Your task to perform on an android device: turn on bluetooth scan Image 0: 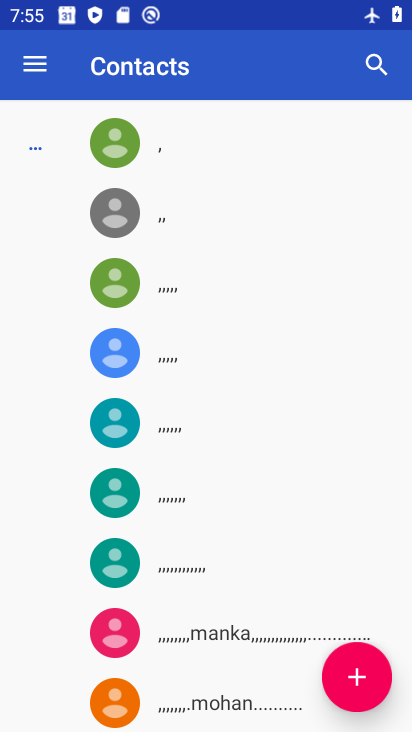
Step 0: press back button
Your task to perform on an android device: turn on bluetooth scan Image 1: 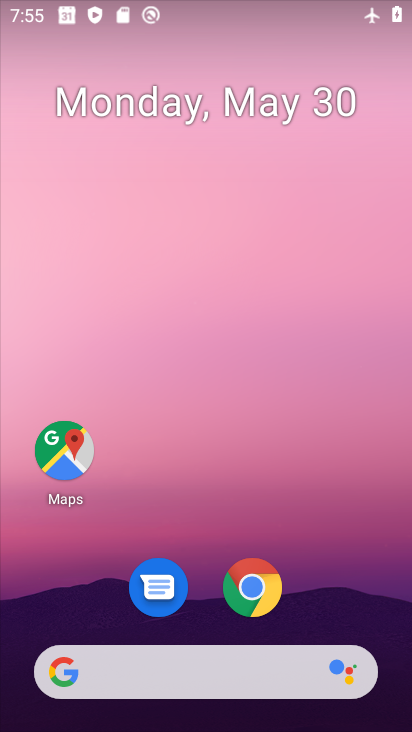
Step 1: drag from (356, 626) to (267, 0)
Your task to perform on an android device: turn on bluetooth scan Image 2: 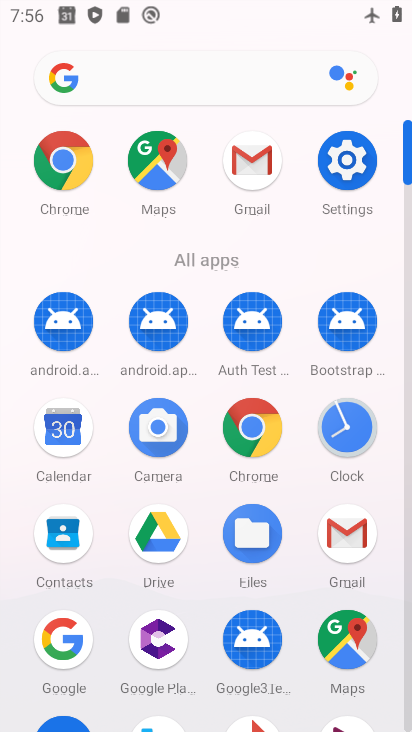
Step 2: click (341, 156)
Your task to perform on an android device: turn on bluetooth scan Image 3: 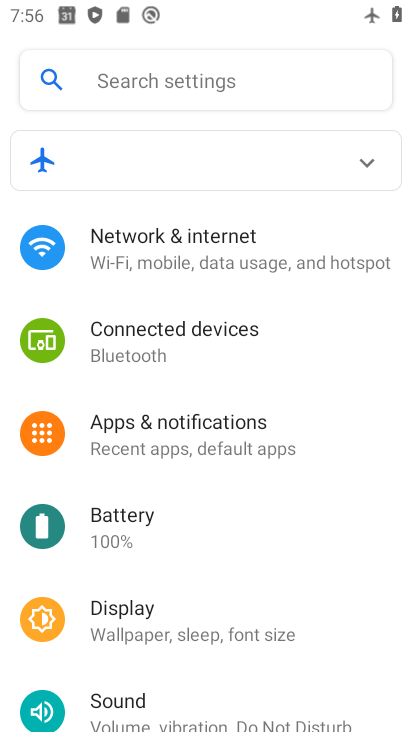
Step 3: drag from (347, 617) to (339, 190)
Your task to perform on an android device: turn on bluetooth scan Image 4: 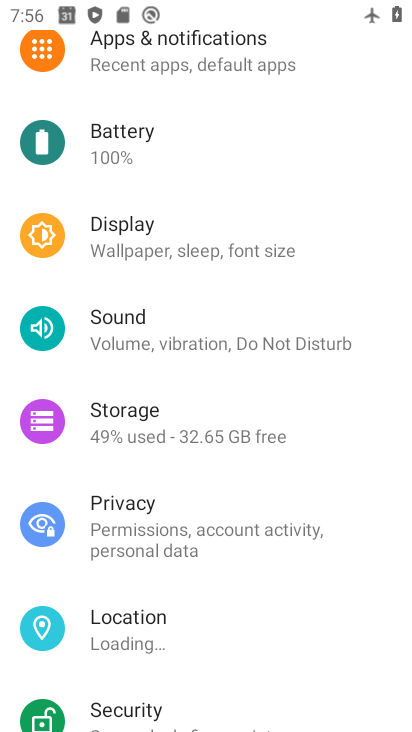
Step 4: drag from (332, 124) to (337, 555)
Your task to perform on an android device: turn on bluetooth scan Image 5: 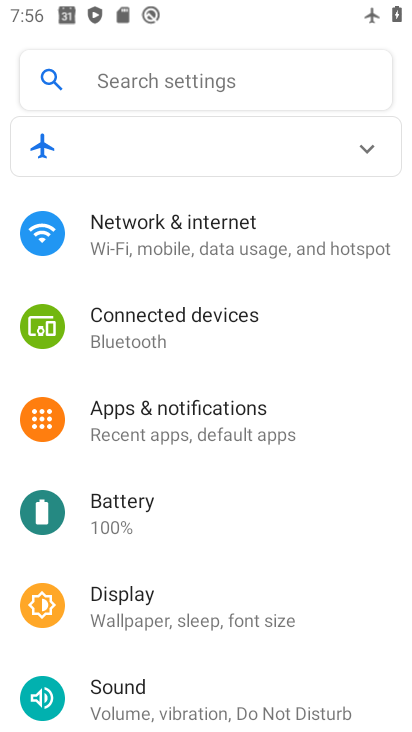
Step 5: drag from (230, 565) to (256, 334)
Your task to perform on an android device: turn on bluetooth scan Image 6: 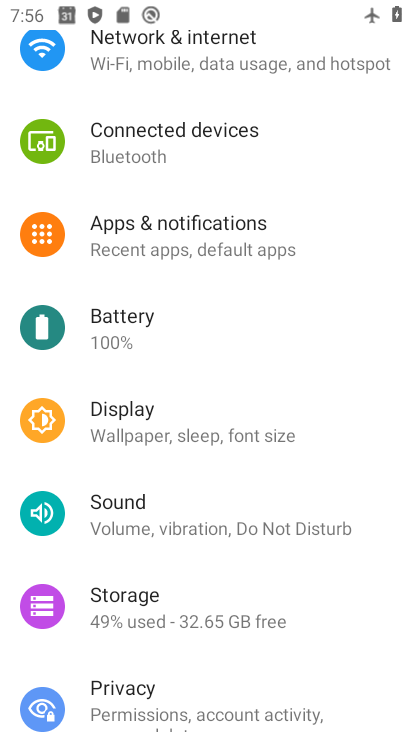
Step 6: drag from (346, 551) to (353, 202)
Your task to perform on an android device: turn on bluetooth scan Image 7: 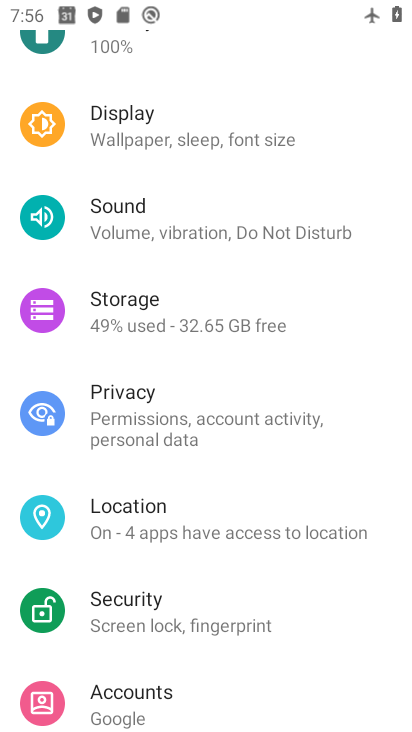
Step 7: click (180, 522)
Your task to perform on an android device: turn on bluetooth scan Image 8: 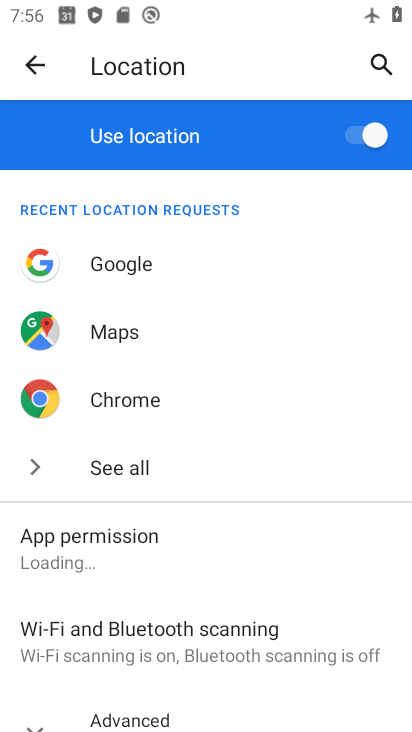
Step 8: drag from (257, 537) to (288, 141)
Your task to perform on an android device: turn on bluetooth scan Image 9: 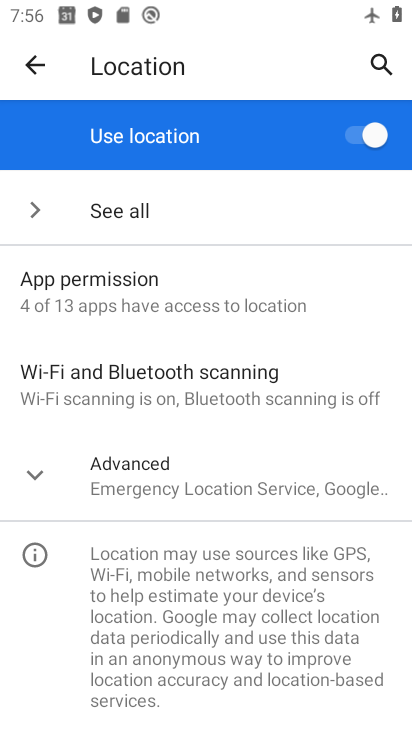
Step 9: click (233, 380)
Your task to perform on an android device: turn on bluetooth scan Image 10: 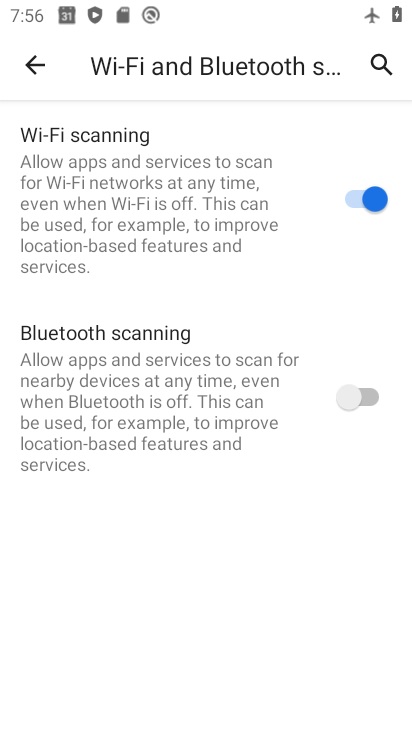
Step 10: click (362, 399)
Your task to perform on an android device: turn on bluetooth scan Image 11: 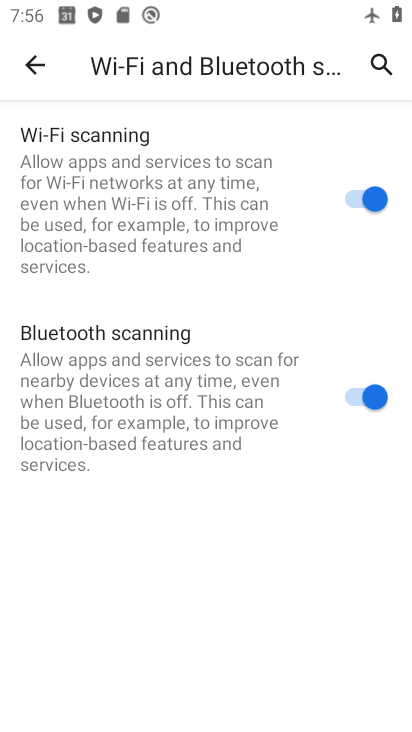
Step 11: task complete